Your task to perform on an android device: install app "Facebook Messenger" Image 0: 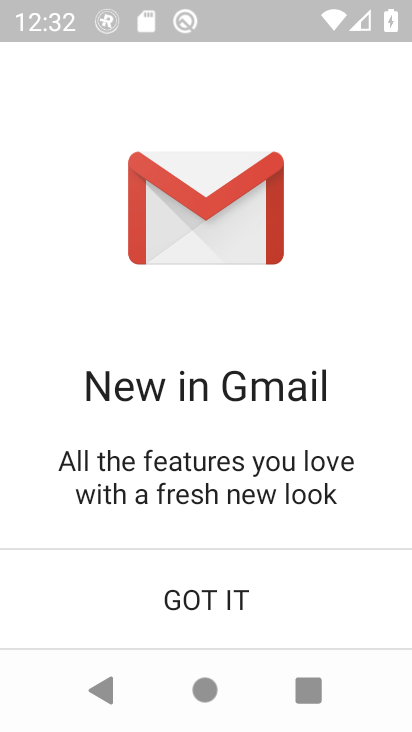
Step 0: press home button
Your task to perform on an android device: install app "Facebook Messenger" Image 1: 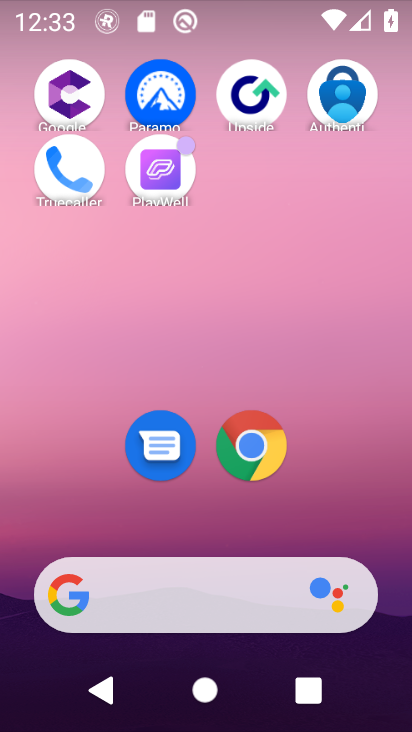
Step 1: drag from (301, 538) to (373, 161)
Your task to perform on an android device: install app "Facebook Messenger" Image 2: 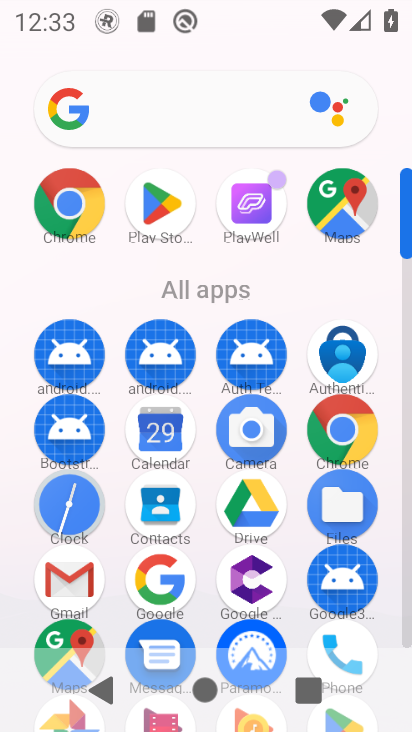
Step 2: click (158, 202)
Your task to perform on an android device: install app "Facebook Messenger" Image 3: 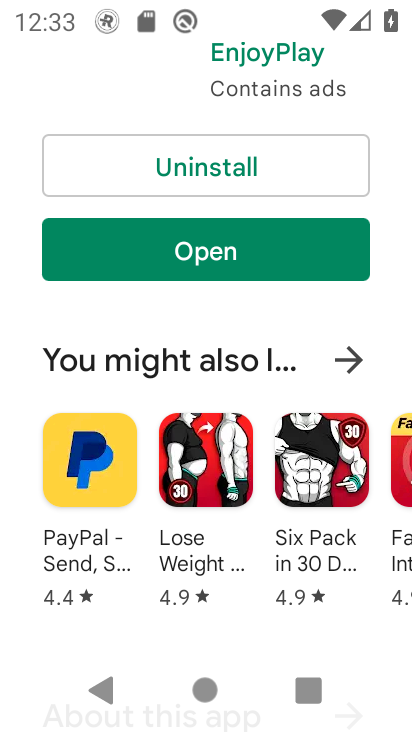
Step 3: drag from (177, 111) to (220, 364)
Your task to perform on an android device: install app "Facebook Messenger" Image 4: 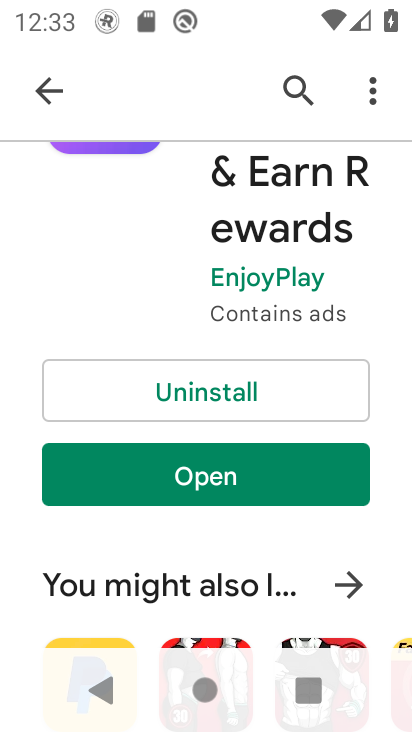
Step 4: click (299, 84)
Your task to perform on an android device: install app "Facebook Messenger" Image 5: 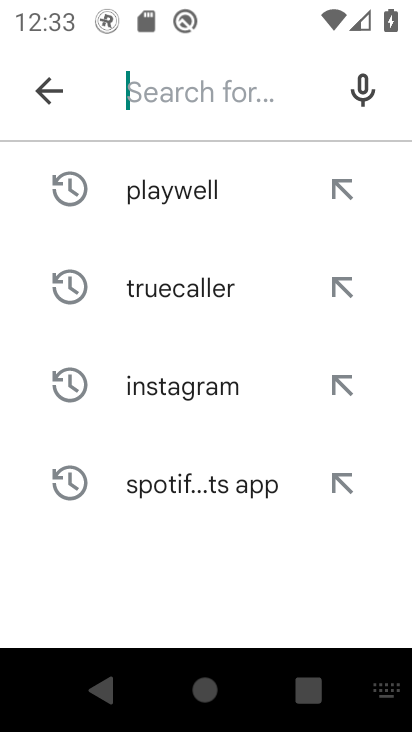
Step 5: click (355, 77)
Your task to perform on an android device: install app "Facebook Messenger" Image 6: 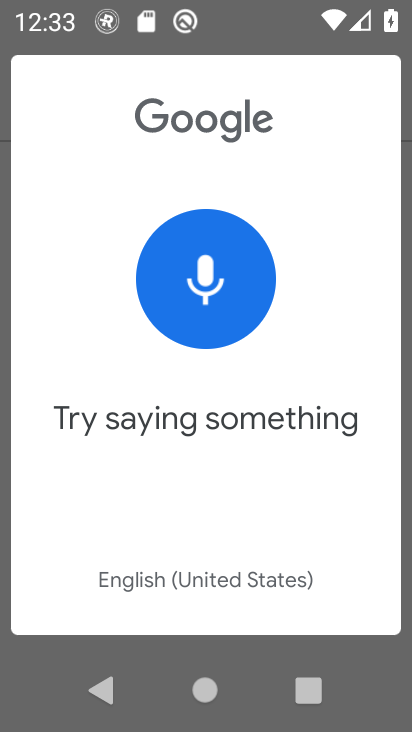
Step 6: click (255, 36)
Your task to perform on an android device: install app "Facebook Messenger" Image 7: 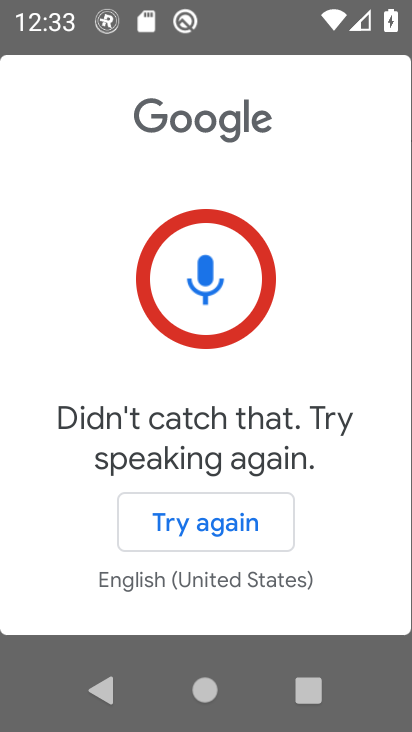
Step 7: click (244, 665)
Your task to perform on an android device: install app "Facebook Messenger" Image 8: 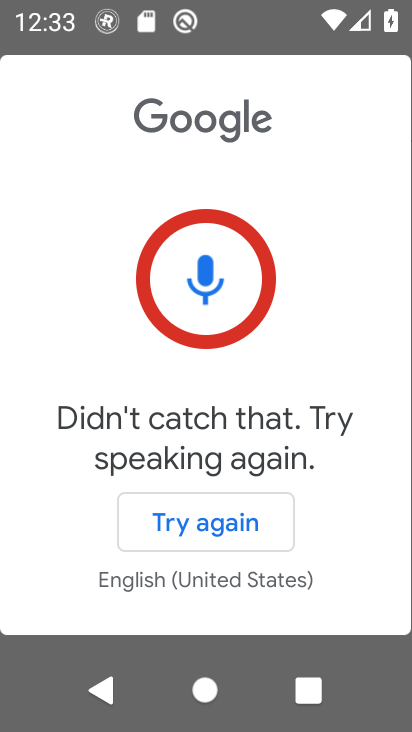
Step 8: click (244, 665)
Your task to perform on an android device: install app "Facebook Messenger" Image 9: 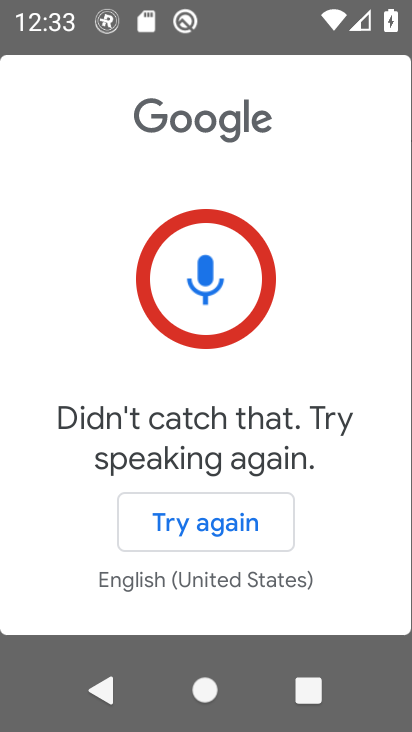
Step 9: press back button
Your task to perform on an android device: install app "Facebook Messenger" Image 10: 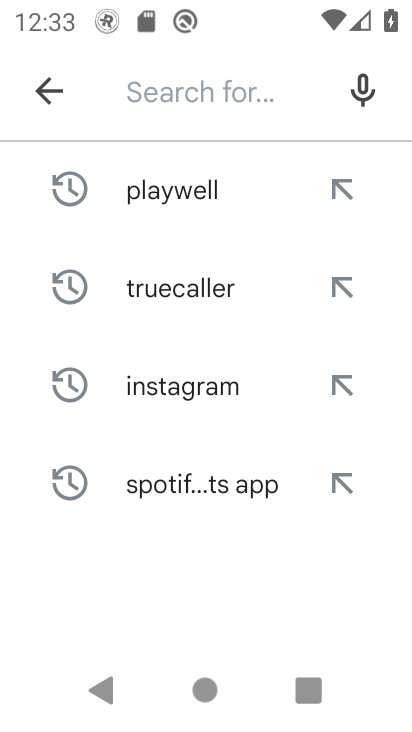
Step 10: click (156, 58)
Your task to perform on an android device: install app "Facebook Messenger" Image 11: 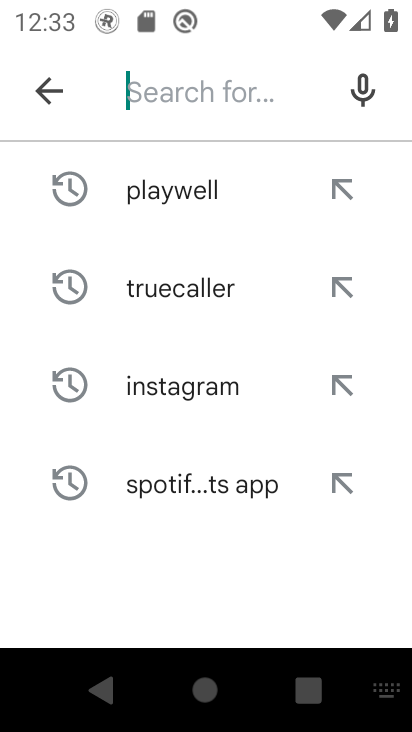
Step 11: click (180, 93)
Your task to perform on an android device: install app "Facebook Messenger" Image 12: 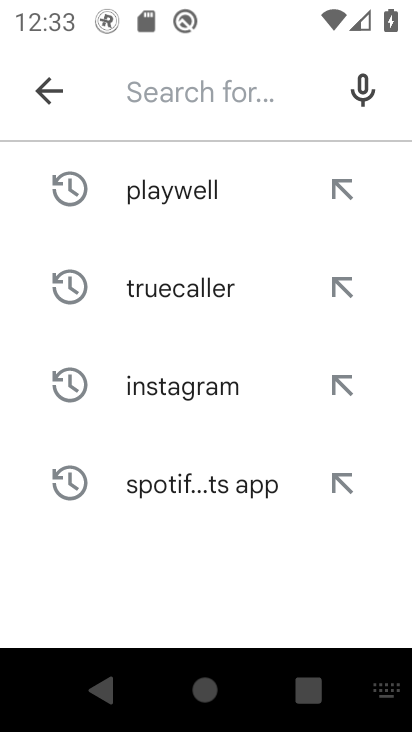
Step 12: type "Facebook Messenger""
Your task to perform on an android device: install app "Facebook Messenger" Image 13: 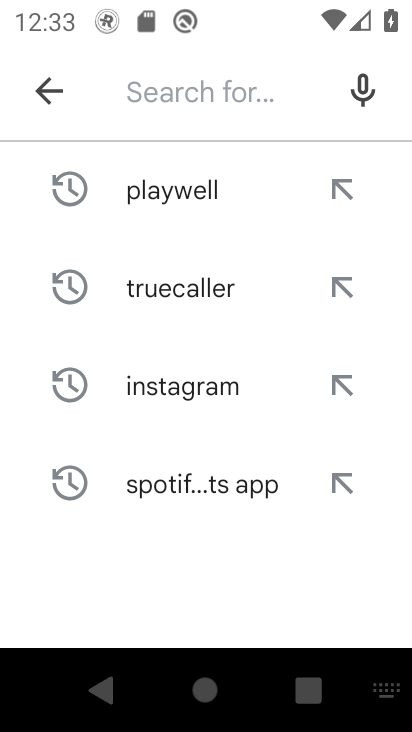
Step 13: type ""
Your task to perform on an android device: install app "Facebook Messenger" Image 14: 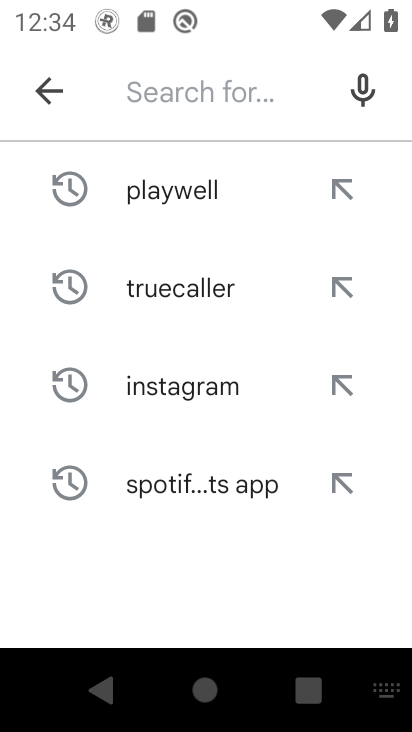
Step 14: type "facebook messnger"
Your task to perform on an android device: install app "Facebook Messenger" Image 15: 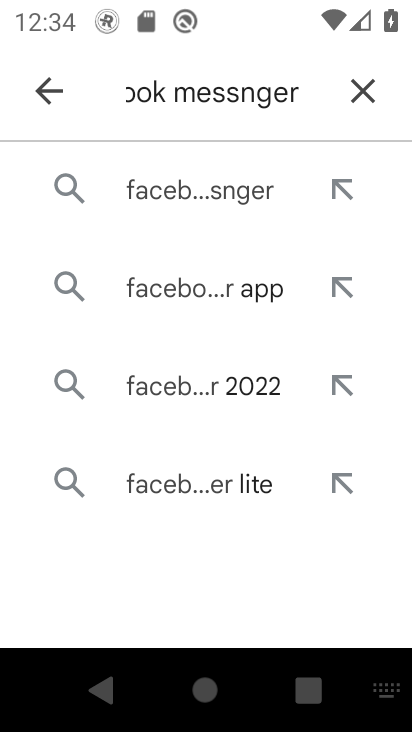
Step 15: click (139, 199)
Your task to perform on an android device: install app "Facebook Messenger" Image 16: 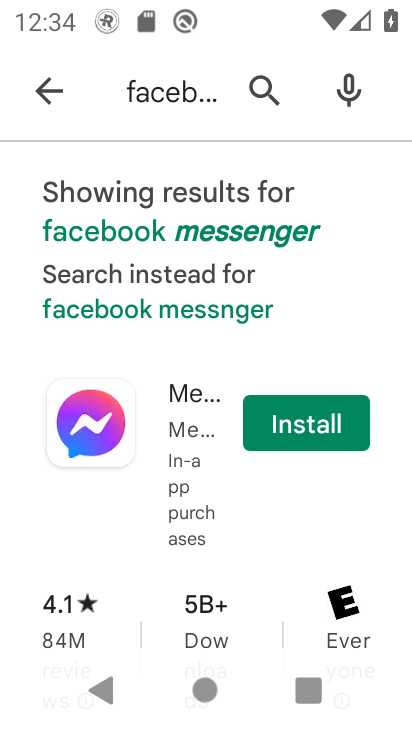
Step 16: click (257, 435)
Your task to perform on an android device: install app "Facebook Messenger" Image 17: 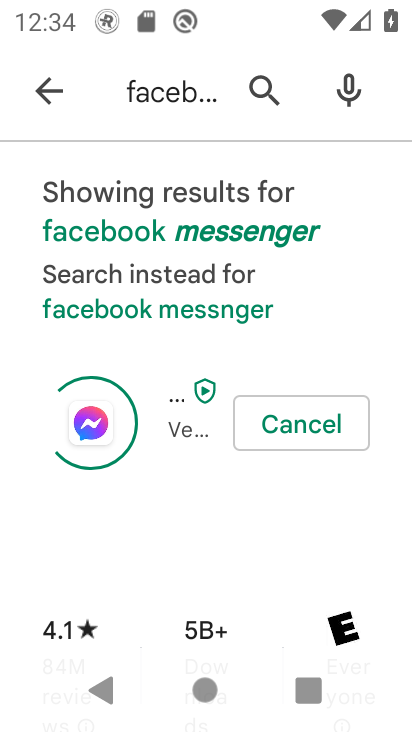
Step 17: drag from (246, 545) to (255, 248)
Your task to perform on an android device: install app "Facebook Messenger" Image 18: 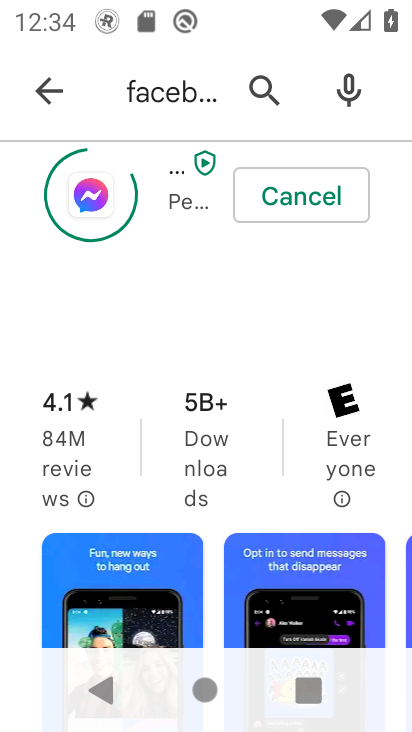
Step 18: click (165, 201)
Your task to perform on an android device: install app "Facebook Messenger" Image 19: 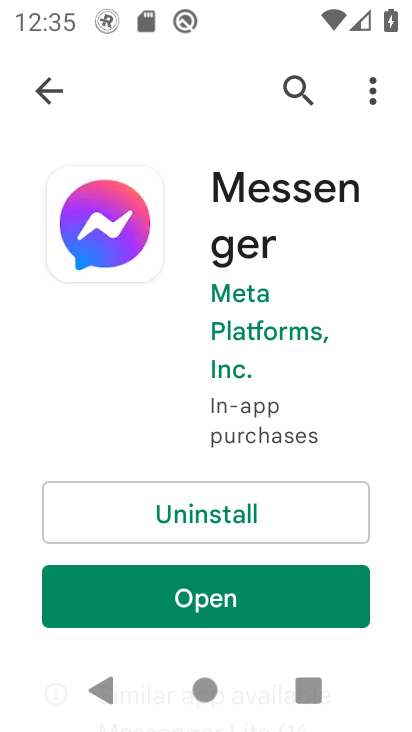
Step 19: task complete